Your task to perform on an android device: What's the weather going to be this weekend? Image 0: 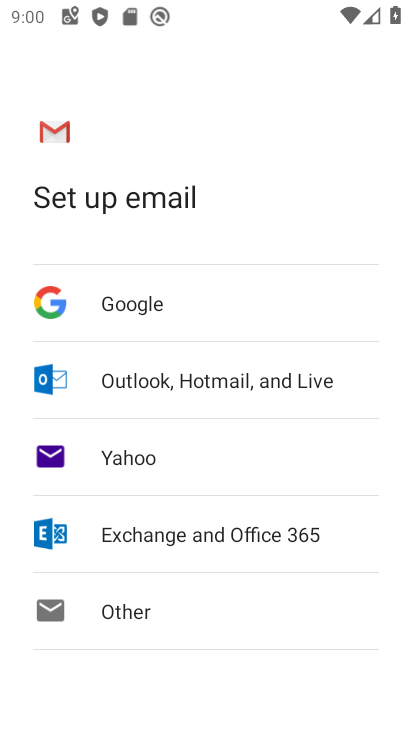
Step 0: press home button
Your task to perform on an android device: What's the weather going to be this weekend? Image 1: 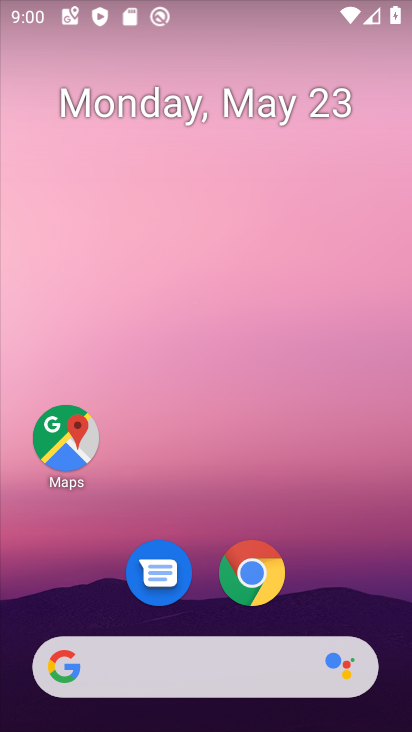
Step 1: click (209, 666)
Your task to perform on an android device: What's the weather going to be this weekend? Image 2: 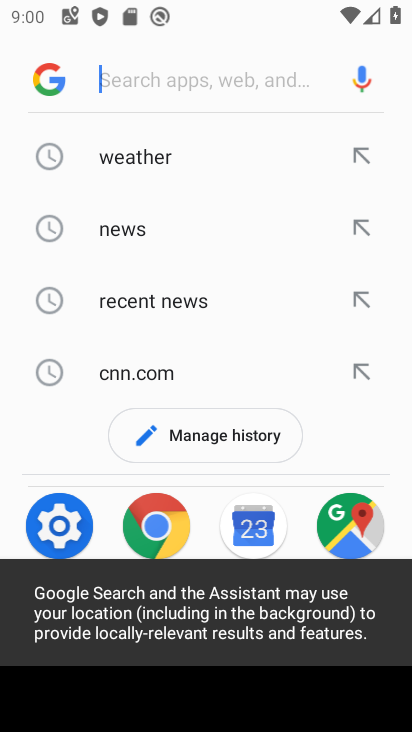
Step 2: click (201, 154)
Your task to perform on an android device: What's the weather going to be this weekend? Image 3: 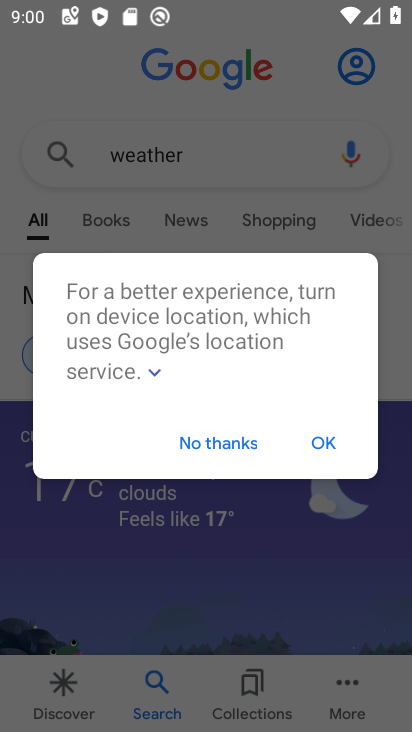
Step 3: click (250, 448)
Your task to perform on an android device: What's the weather going to be this weekend? Image 4: 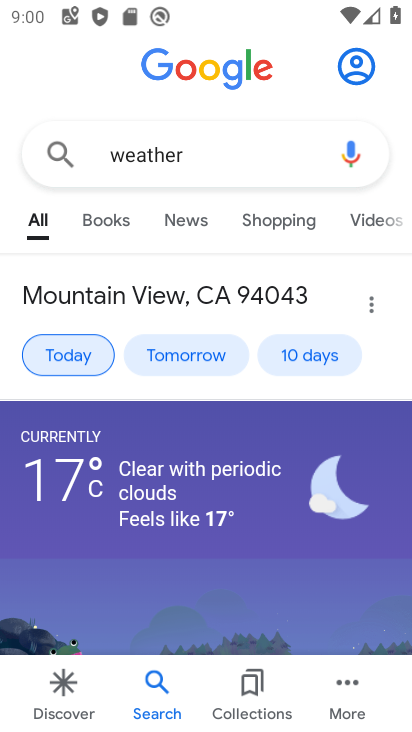
Step 4: click (327, 359)
Your task to perform on an android device: What's the weather going to be this weekend? Image 5: 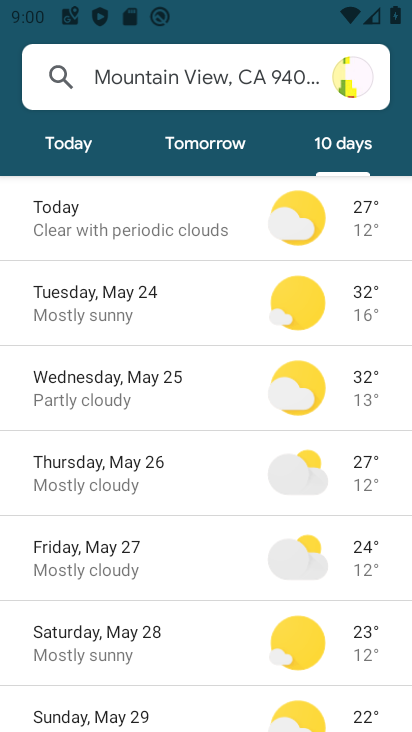
Step 5: drag from (217, 562) to (228, 384)
Your task to perform on an android device: What's the weather going to be this weekend? Image 6: 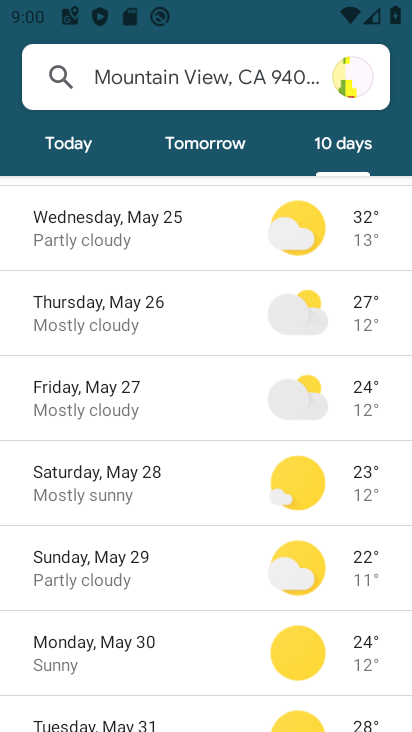
Step 6: drag from (232, 558) to (240, 291)
Your task to perform on an android device: What's the weather going to be this weekend? Image 7: 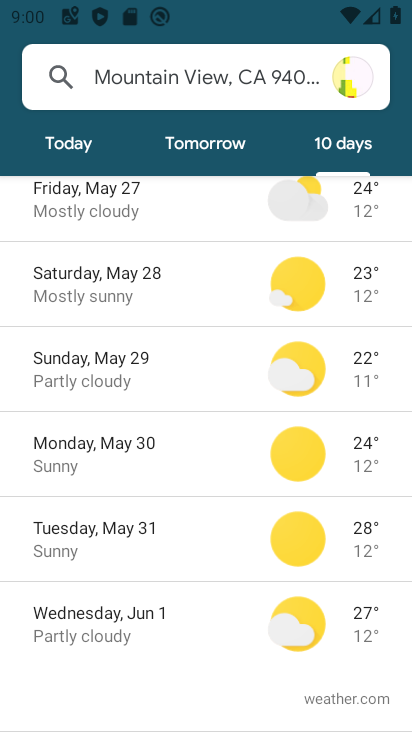
Step 7: click (201, 286)
Your task to perform on an android device: What's the weather going to be this weekend? Image 8: 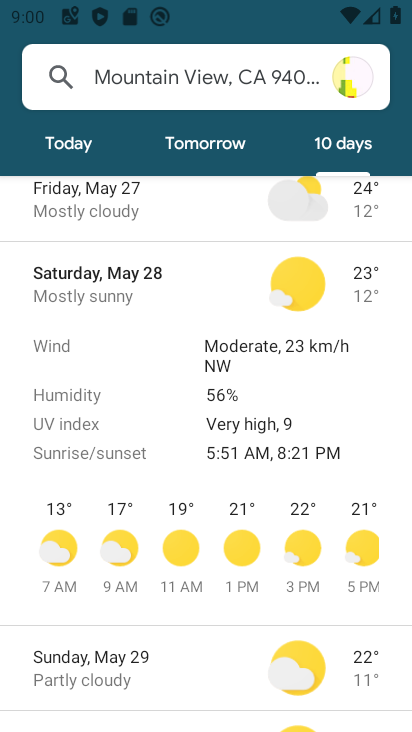
Step 8: task complete